Your task to perform on an android device: Find coffee shops on Maps Image 0: 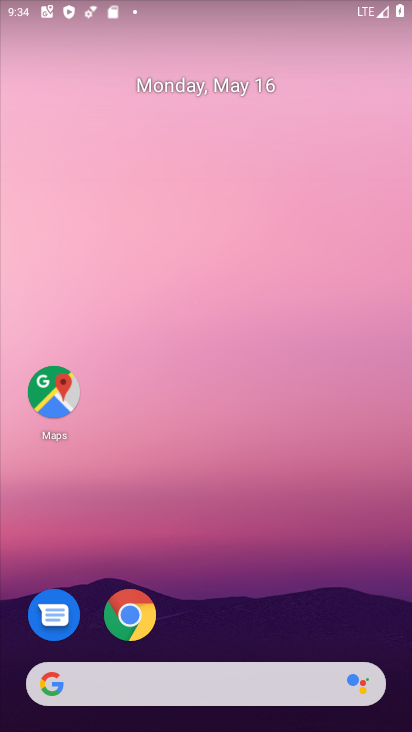
Step 0: drag from (172, 601) to (250, 155)
Your task to perform on an android device: Find coffee shops on Maps Image 1: 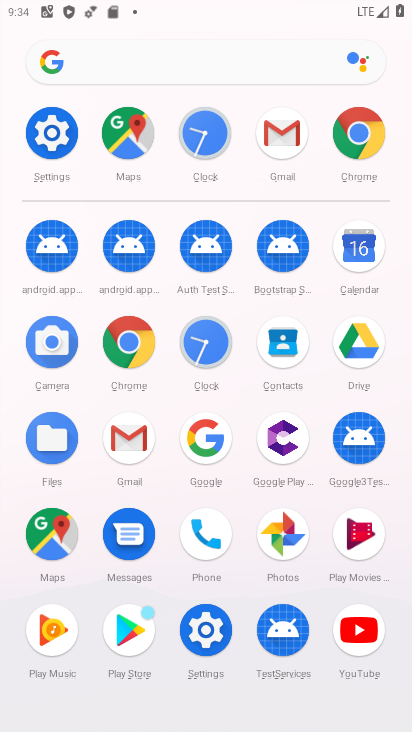
Step 1: click (56, 552)
Your task to perform on an android device: Find coffee shops on Maps Image 2: 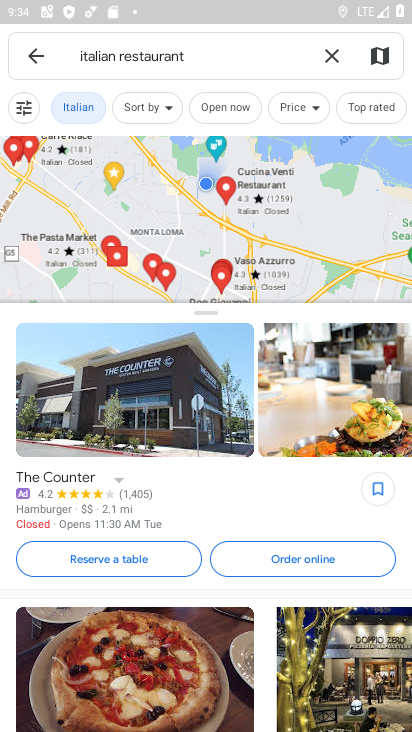
Step 2: click (330, 61)
Your task to perform on an android device: Find coffee shops on Maps Image 3: 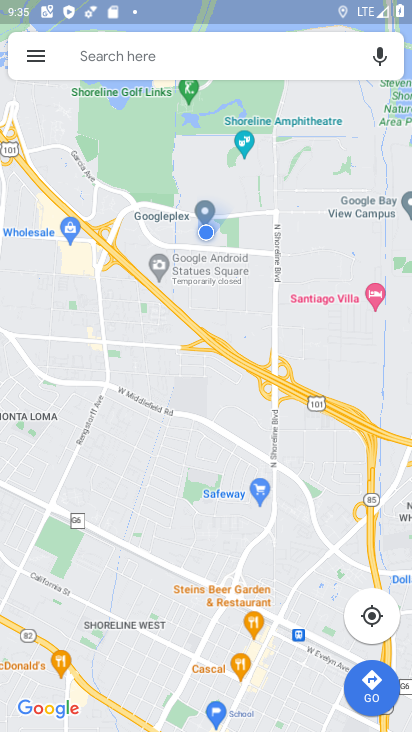
Step 3: click (222, 59)
Your task to perform on an android device: Find coffee shops on Maps Image 4: 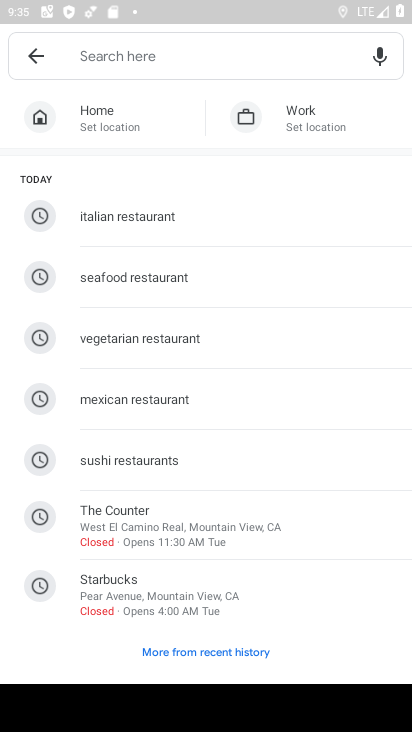
Step 4: type "coffee shops"
Your task to perform on an android device: Find coffee shops on Maps Image 5: 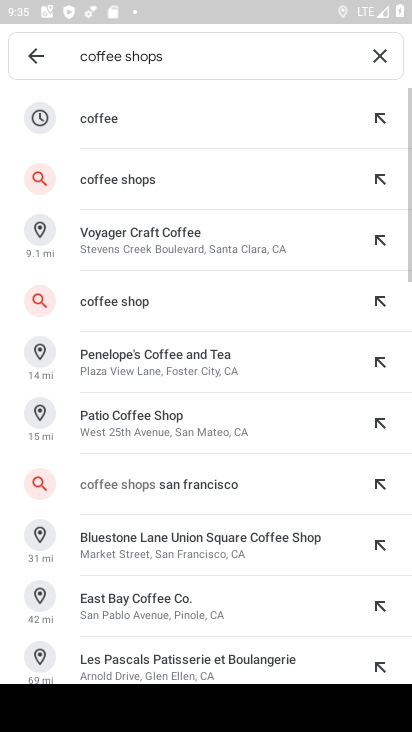
Step 5: click (144, 176)
Your task to perform on an android device: Find coffee shops on Maps Image 6: 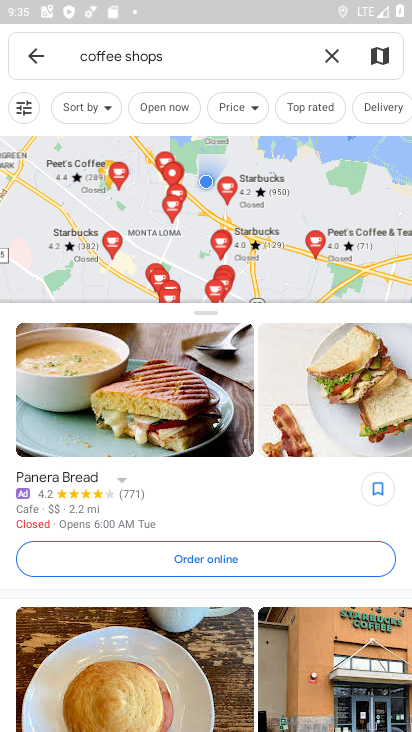
Step 6: task complete